Your task to perform on an android device: Set the phone to "Do not disturb". Image 0: 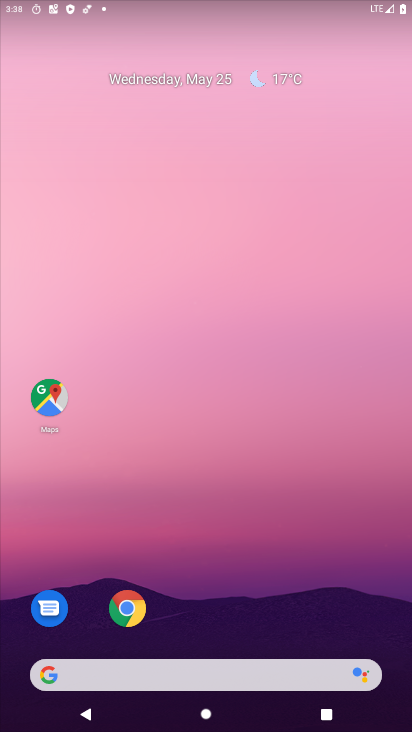
Step 0: click (48, 397)
Your task to perform on an android device: Set the phone to "Do not disturb". Image 1: 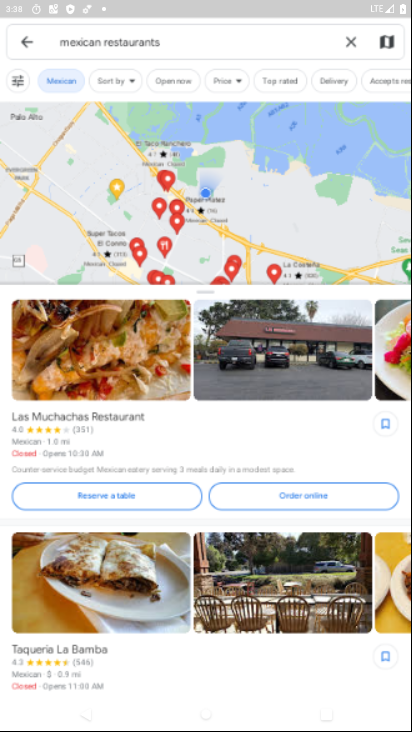
Step 1: drag from (245, 0) to (264, 586)
Your task to perform on an android device: Set the phone to "Do not disturb". Image 2: 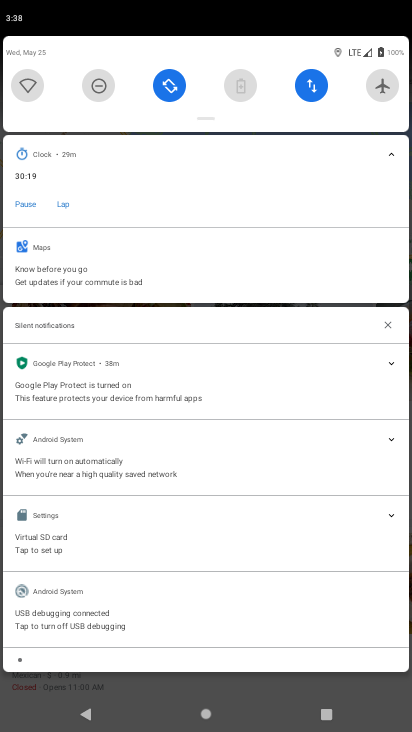
Step 2: click (99, 76)
Your task to perform on an android device: Set the phone to "Do not disturb". Image 3: 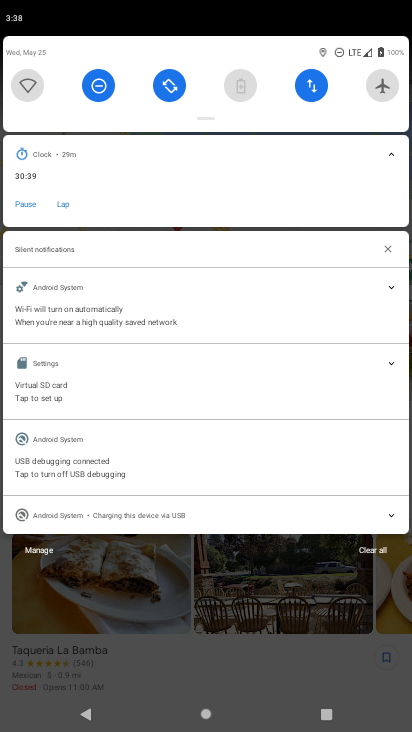
Step 3: task complete